Your task to perform on an android device: Open location settings Image 0: 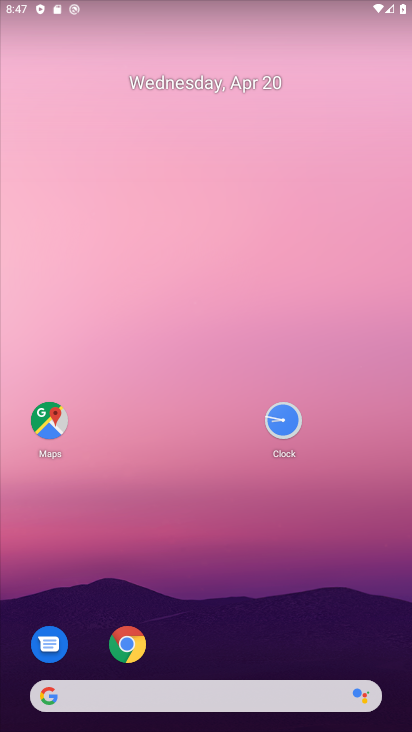
Step 0: drag from (263, 649) to (223, 71)
Your task to perform on an android device: Open location settings Image 1: 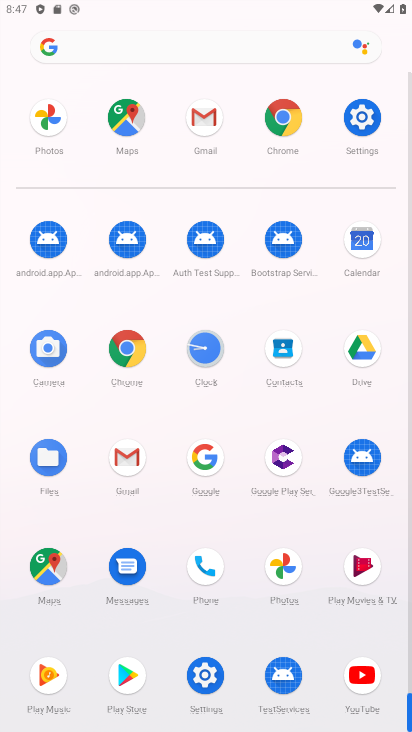
Step 1: click (213, 669)
Your task to perform on an android device: Open location settings Image 2: 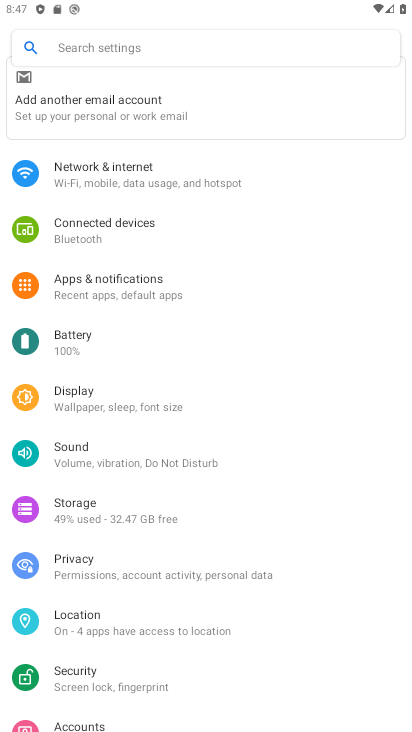
Step 2: click (148, 623)
Your task to perform on an android device: Open location settings Image 3: 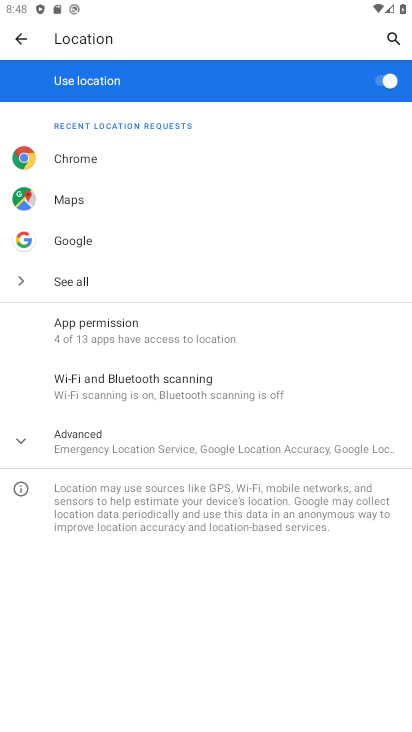
Step 3: task complete